Your task to perform on an android device: Go to eBay Image 0: 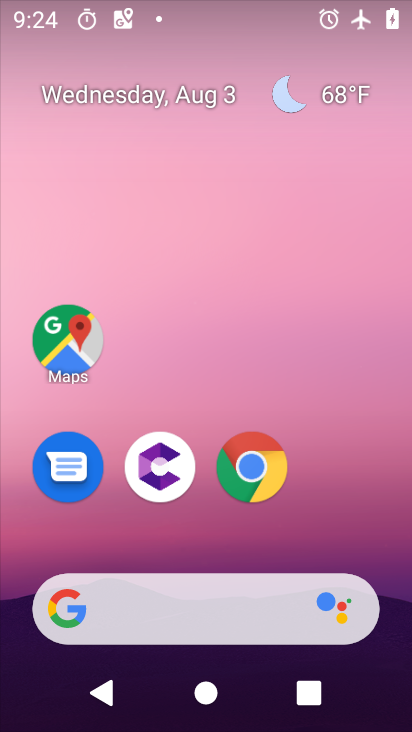
Step 0: drag from (339, 479) to (310, 49)
Your task to perform on an android device: Go to eBay Image 1: 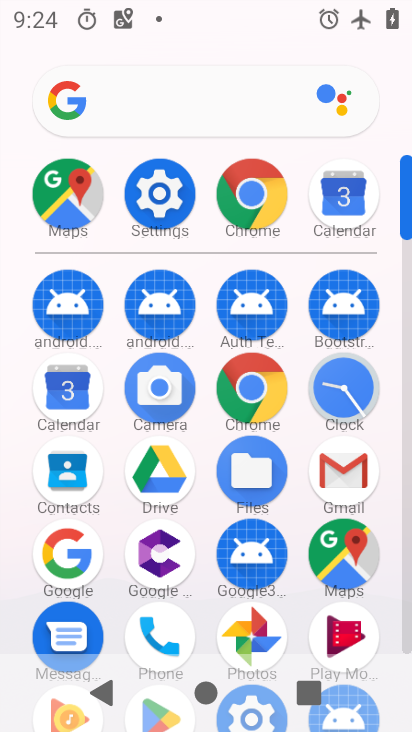
Step 1: click (257, 200)
Your task to perform on an android device: Go to eBay Image 2: 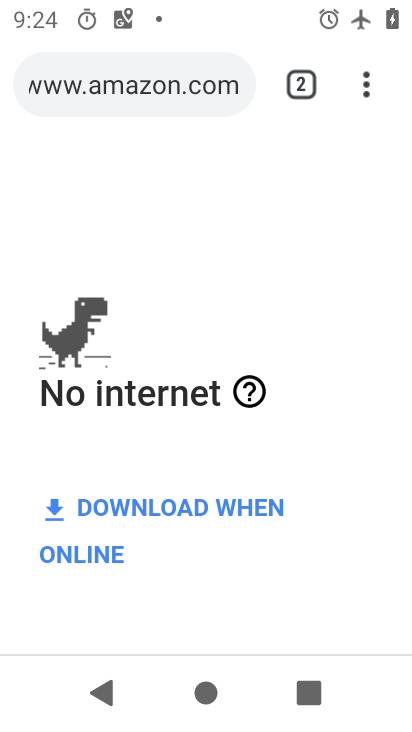
Step 2: click (217, 96)
Your task to perform on an android device: Go to eBay Image 3: 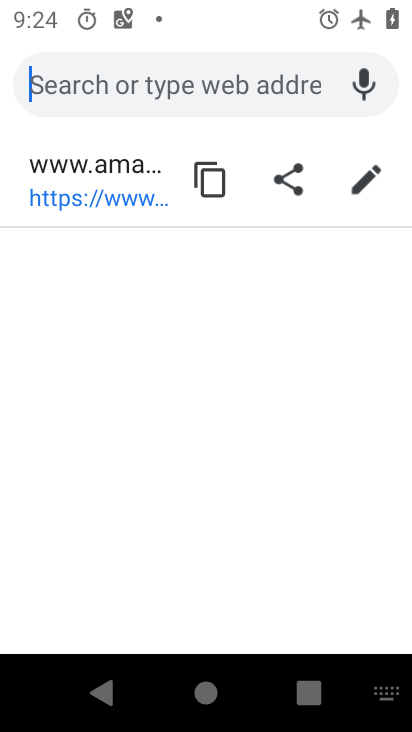
Step 3: type "ebay"
Your task to perform on an android device: Go to eBay Image 4: 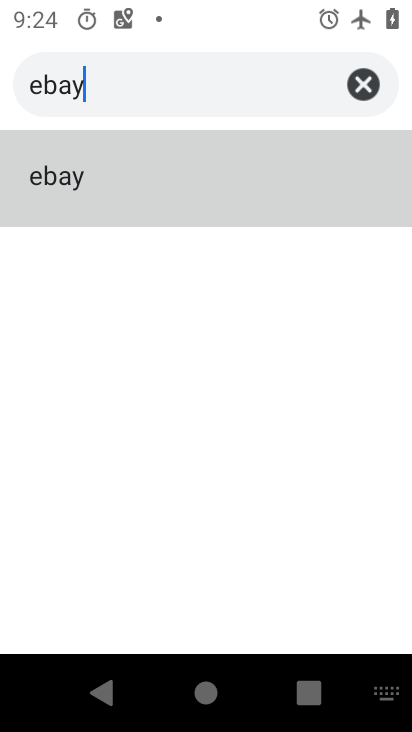
Step 4: click (71, 159)
Your task to perform on an android device: Go to eBay Image 5: 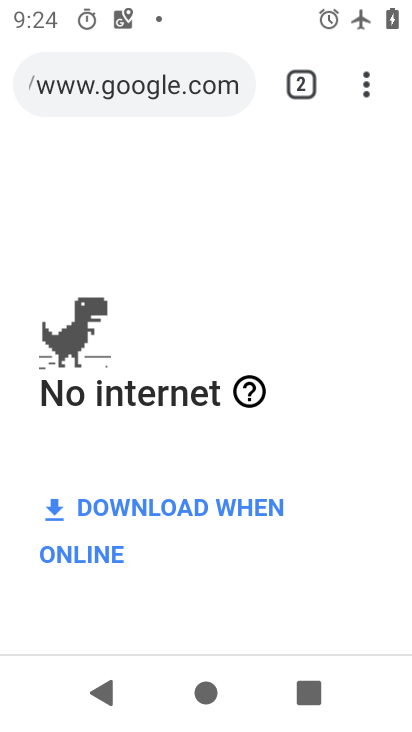
Step 5: task complete